Your task to perform on an android device: snooze an email in the gmail app Image 0: 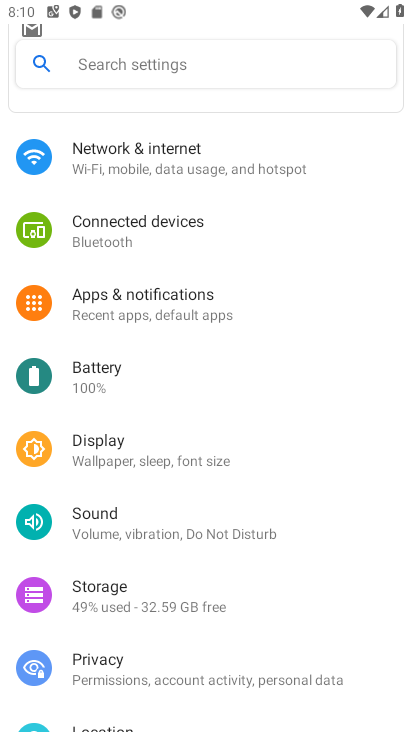
Step 0: press home button
Your task to perform on an android device: snooze an email in the gmail app Image 1: 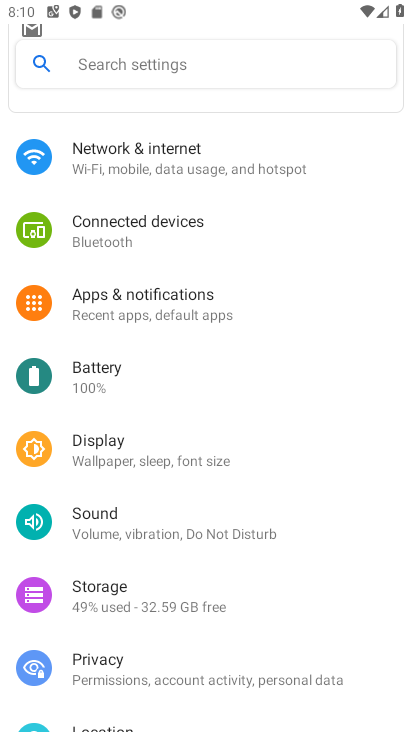
Step 1: press home button
Your task to perform on an android device: snooze an email in the gmail app Image 2: 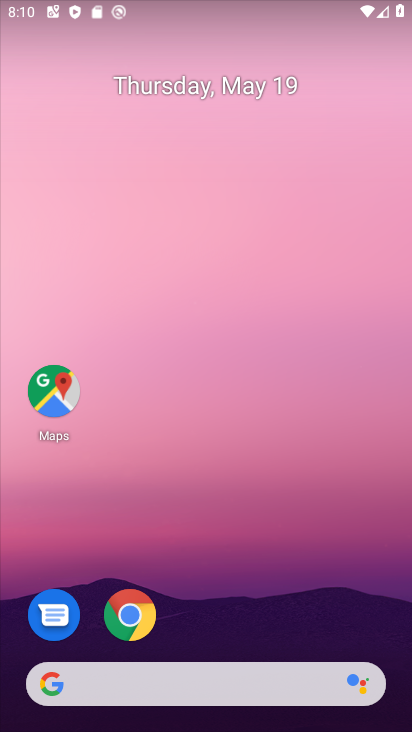
Step 2: drag from (216, 634) to (338, 9)
Your task to perform on an android device: snooze an email in the gmail app Image 3: 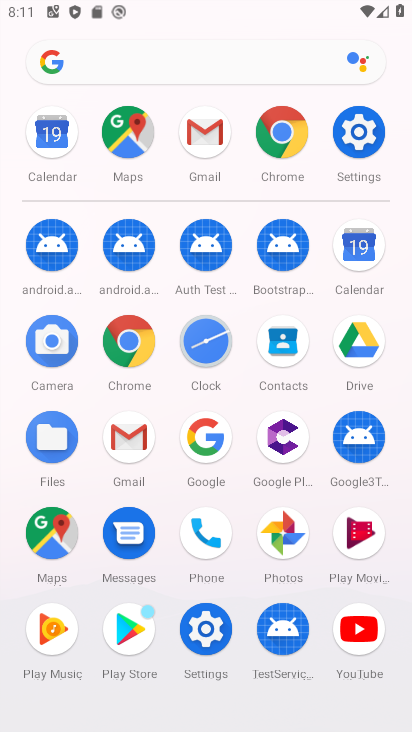
Step 3: click (125, 462)
Your task to perform on an android device: snooze an email in the gmail app Image 4: 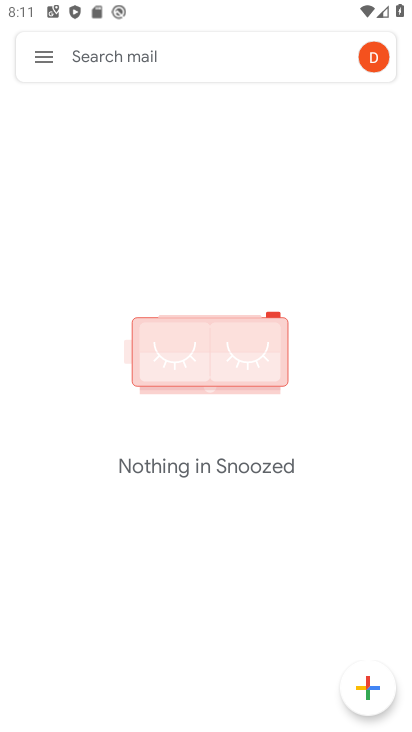
Step 4: click (46, 56)
Your task to perform on an android device: snooze an email in the gmail app Image 5: 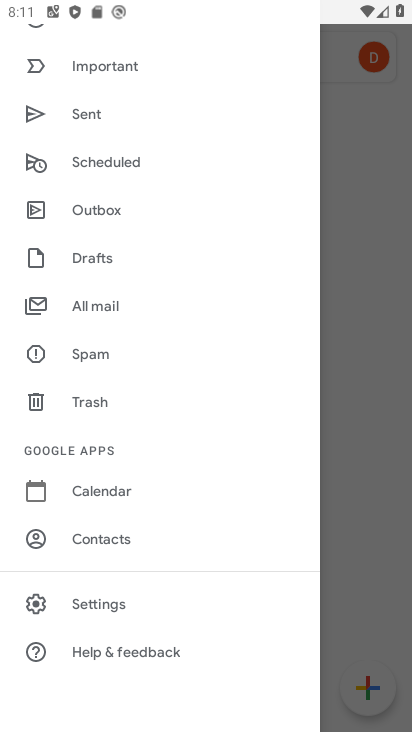
Step 5: click (116, 597)
Your task to perform on an android device: snooze an email in the gmail app Image 6: 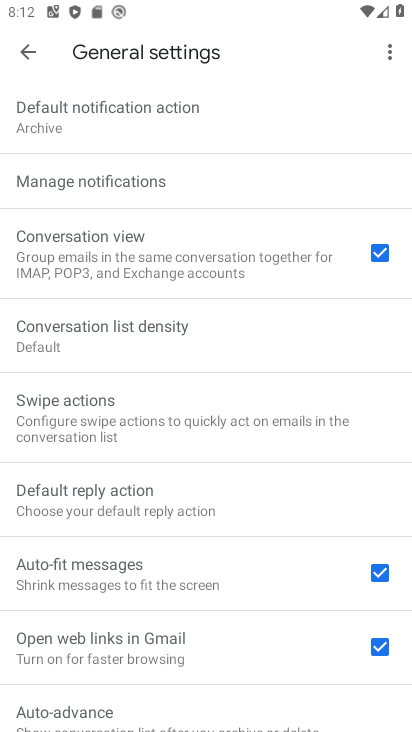
Step 6: click (11, 50)
Your task to perform on an android device: snooze an email in the gmail app Image 7: 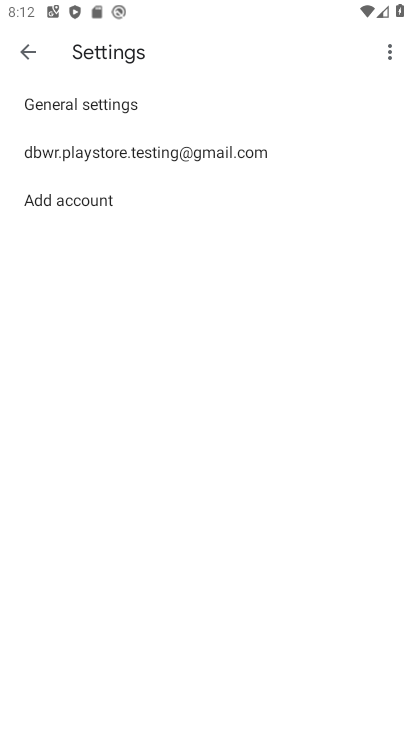
Step 7: click (26, 56)
Your task to perform on an android device: snooze an email in the gmail app Image 8: 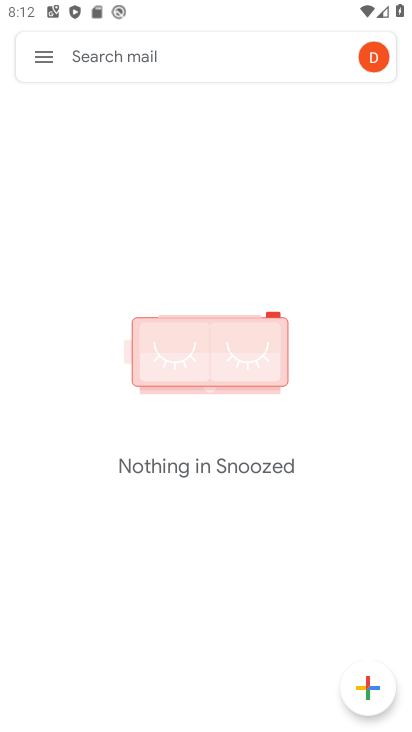
Step 8: click (44, 53)
Your task to perform on an android device: snooze an email in the gmail app Image 9: 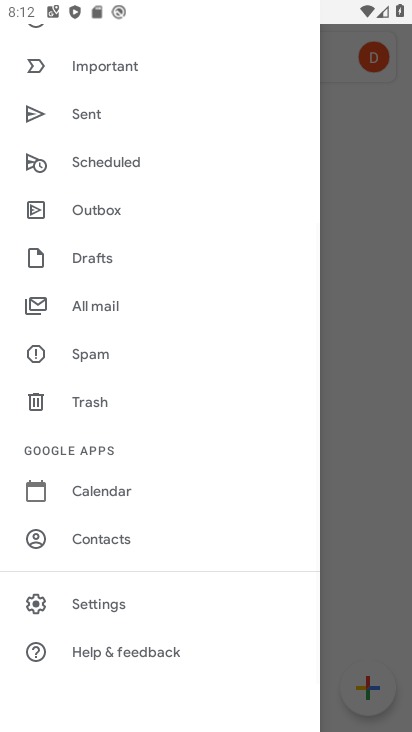
Step 9: click (120, 299)
Your task to perform on an android device: snooze an email in the gmail app Image 10: 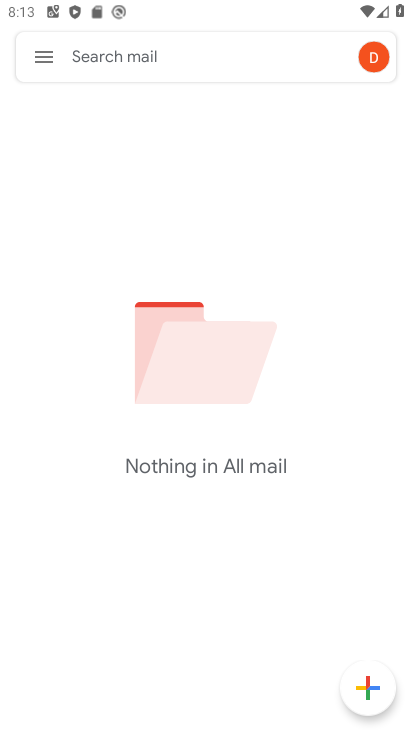
Step 10: task complete